Your task to perform on an android device: turn on airplane mode Image 0: 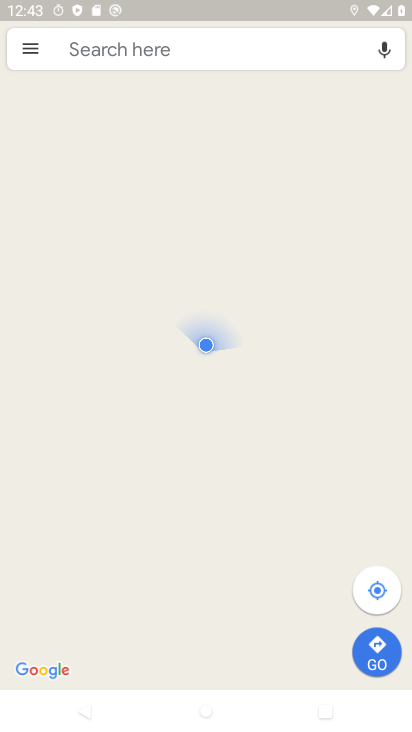
Step 0: press home button
Your task to perform on an android device: turn on airplane mode Image 1: 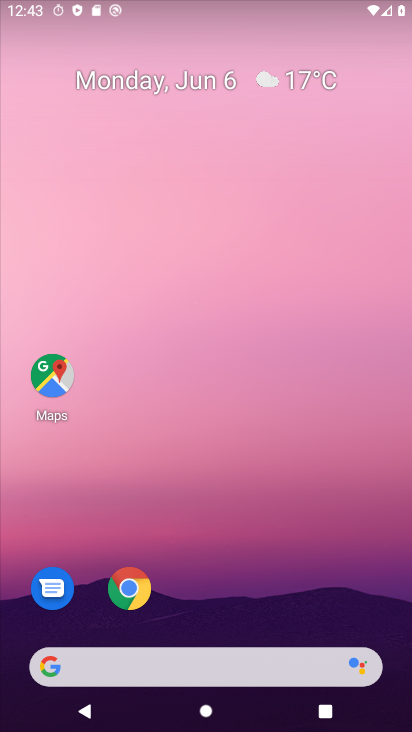
Step 1: drag from (222, 593) to (196, 213)
Your task to perform on an android device: turn on airplane mode Image 2: 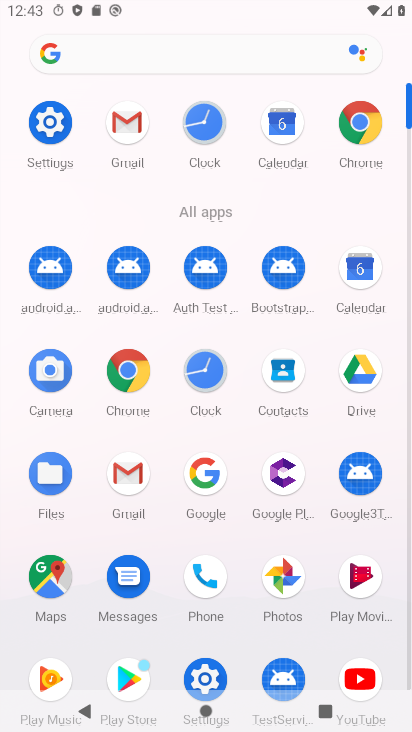
Step 2: click (52, 116)
Your task to perform on an android device: turn on airplane mode Image 3: 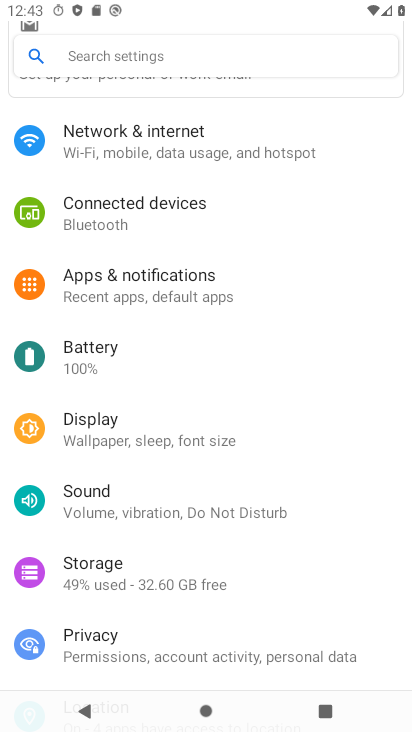
Step 3: drag from (204, 130) to (143, 390)
Your task to perform on an android device: turn on airplane mode Image 4: 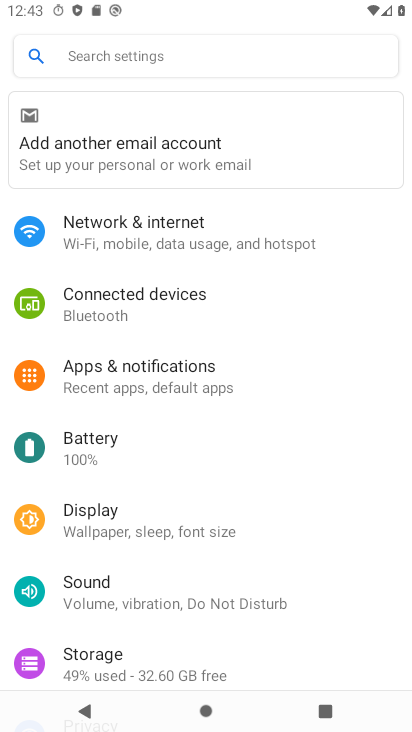
Step 4: click (150, 244)
Your task to perform on an android device: turn on airplane mode Image 5: 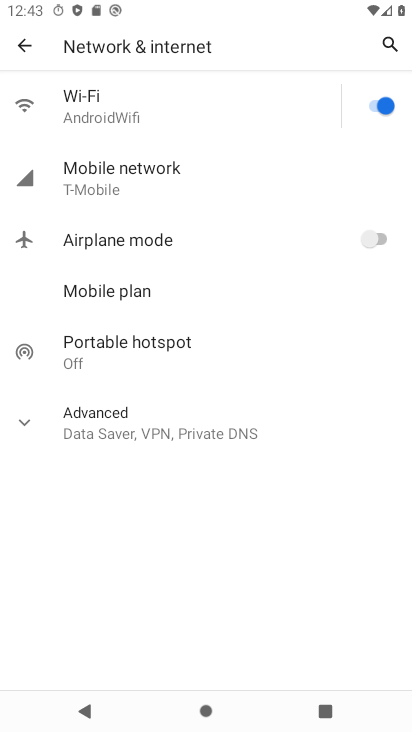
Step 5: click (372, 241)
Your task to perform on an android device: turn on airplane mode Image 6: 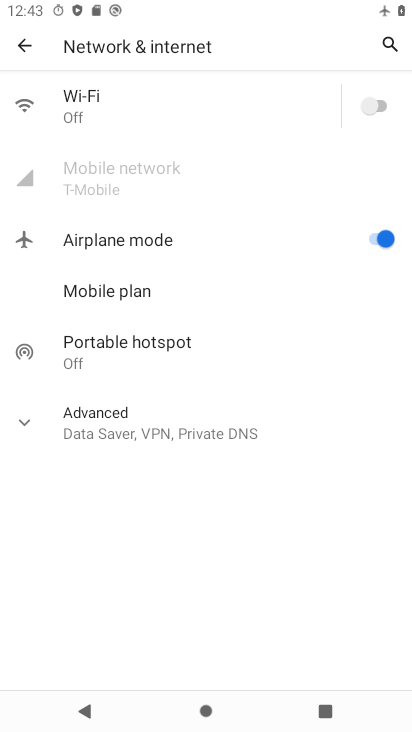
Step 6: task complete